Your task to perform on an android device: install app "Grab" Image 0: 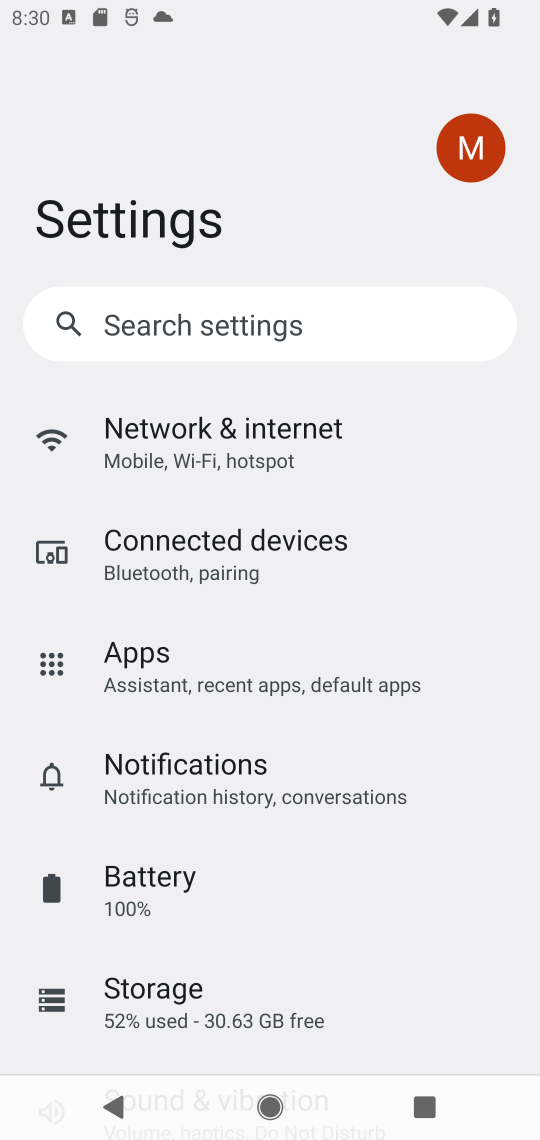
Step 0: press home button
Your task to perform on an android device: install app "Grab" Image 1: 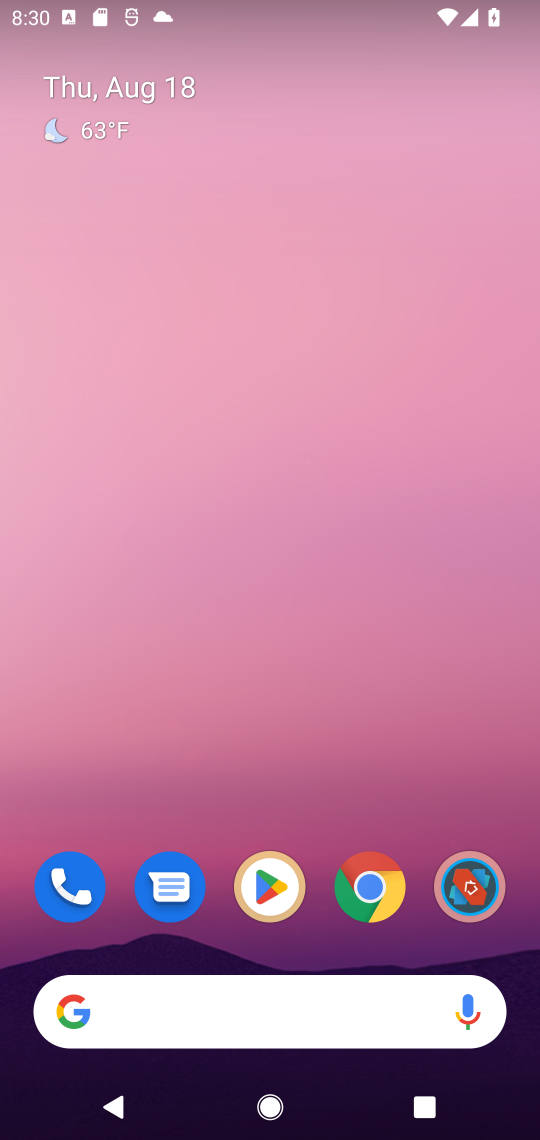
Step 1: drag from (318, 968) to (338, 62)
Your task to perform on an android device: install app "Grab" Image 2: 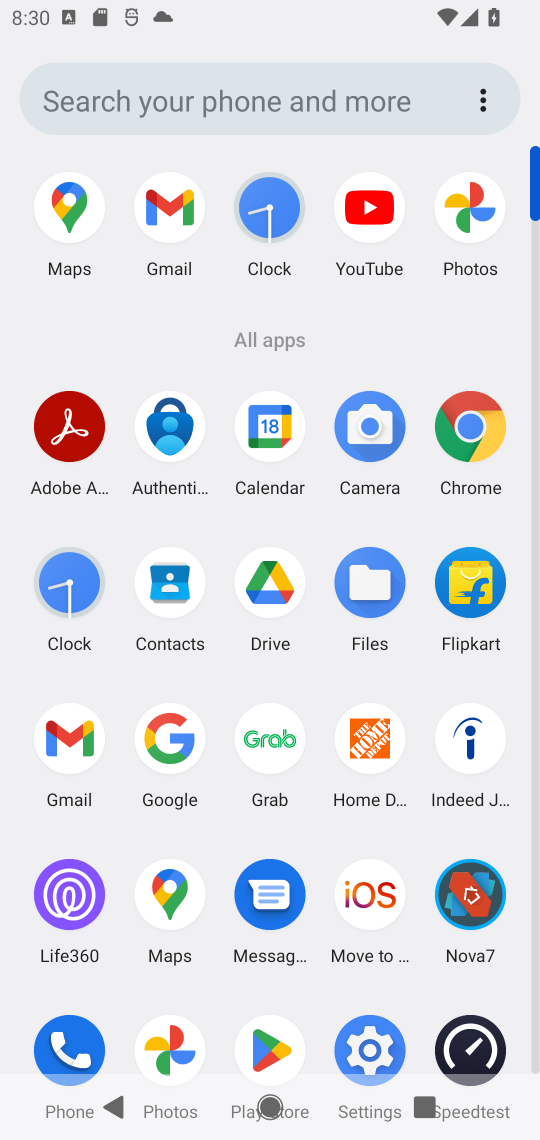
Step 2: click (260, 1052)
Your task to perform on an android device: install app "Grab" Image 3: 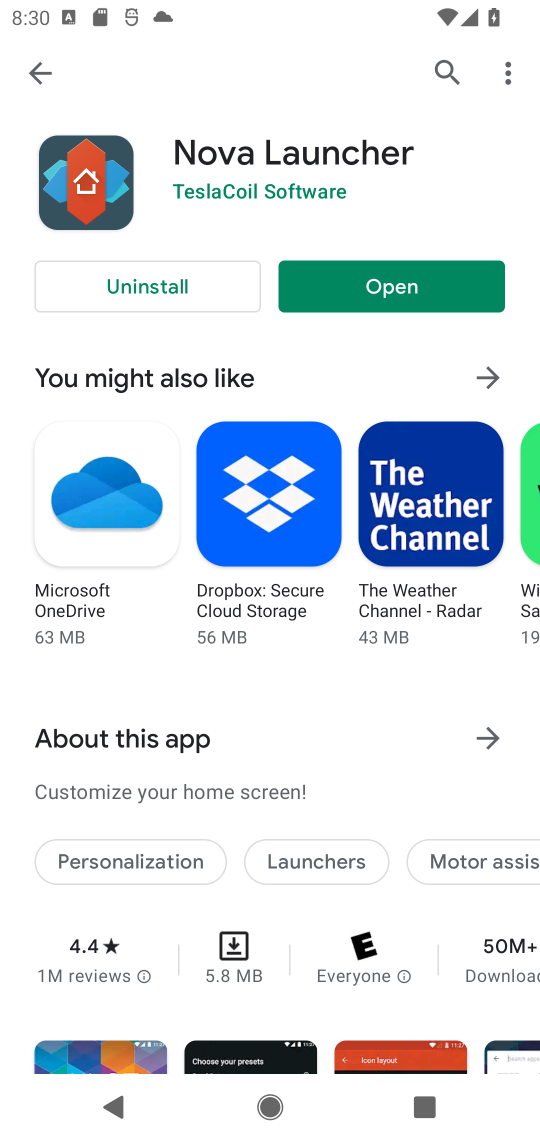
Step 3: click (433, 56)
Your task to perform on an android device: install app "Grab" Image 4: 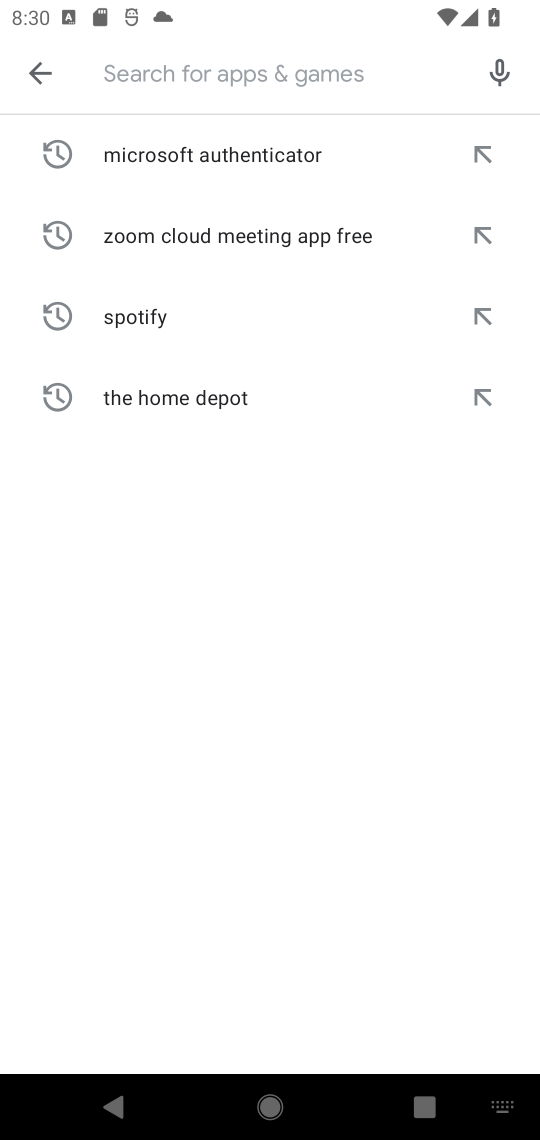
Step 4: type "Grab"
Your task to perform on an android device: install app "Grab" Image 5: 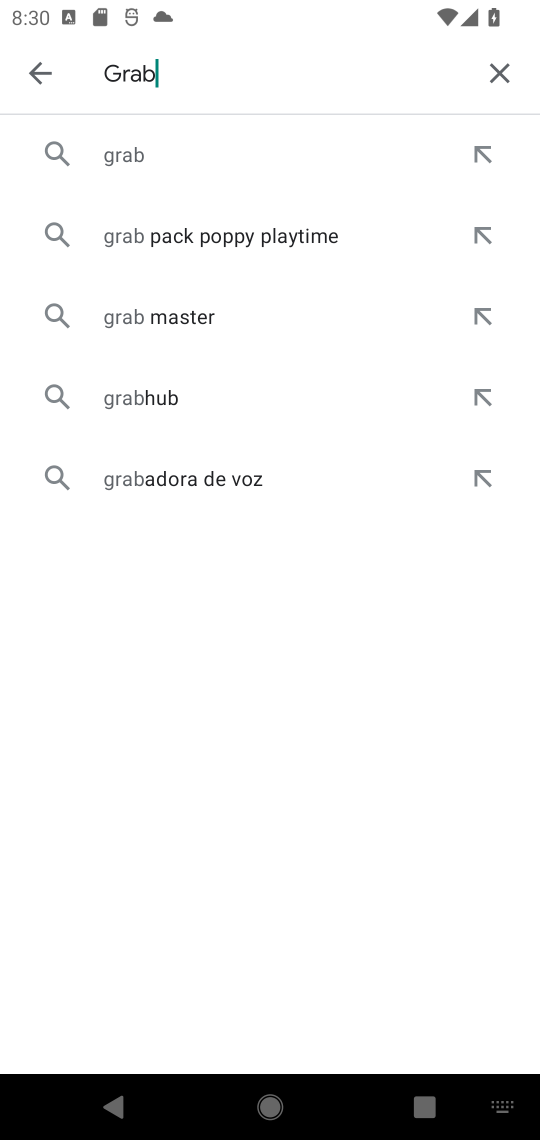
Step 5: click (139, 157)
Your task to perform on an android device: install app "Grab" Image 6: 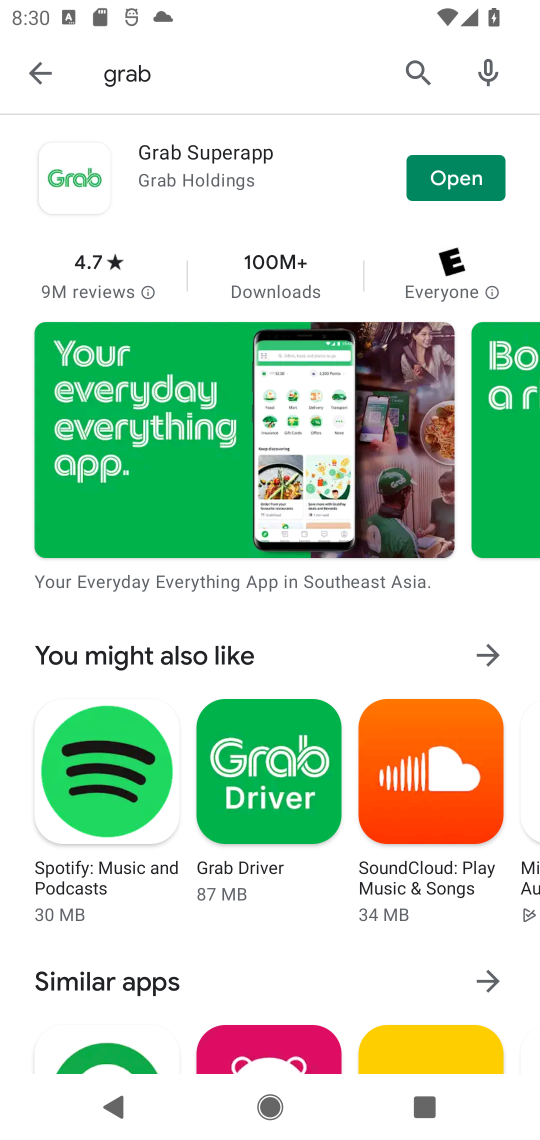
Step 6: task complete